Your task to perform on an android device: Search for vegetarian restaurants on Maps Image 0: 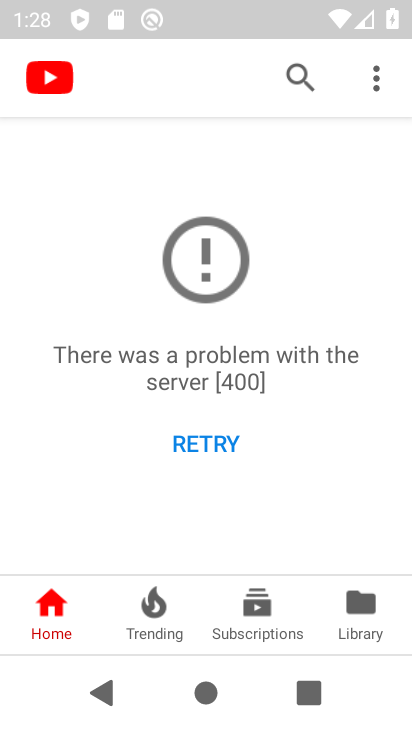
Step 0: press back button
Your task to perform on an android device: Search for vegetarian restaurants on Maps Image 1: 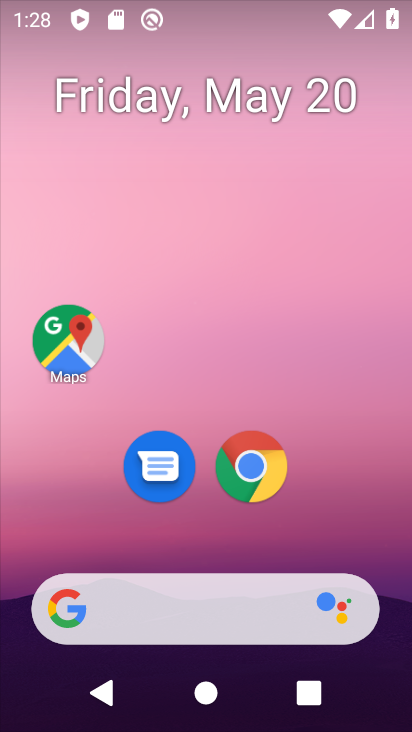
Step 1: click (77, 353)
Your task to perform on an android device: Search for vegetarian restaurants on Maps Image 2: 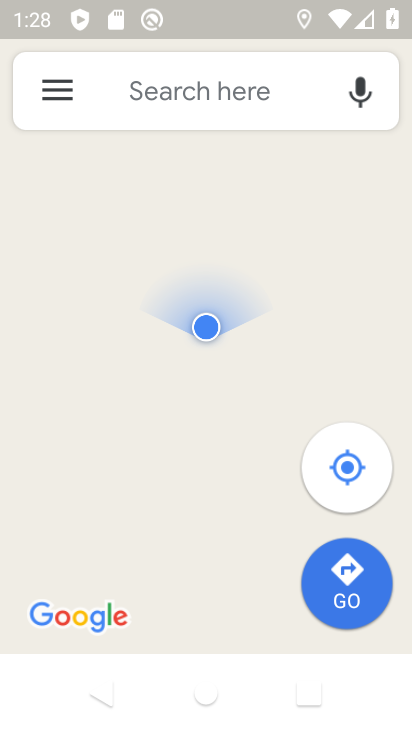
Step 2: click (204, 71)
Your task to perform on an android device: Search for vegetarian restaurants on Maps Image 3: 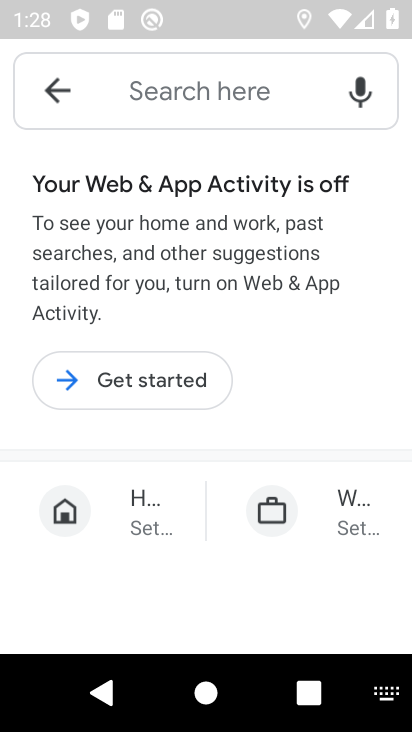
Step 3: click (104, 373)
Your task to perform on an android device: Search for vegetarian restaurants on Maps Image 4: 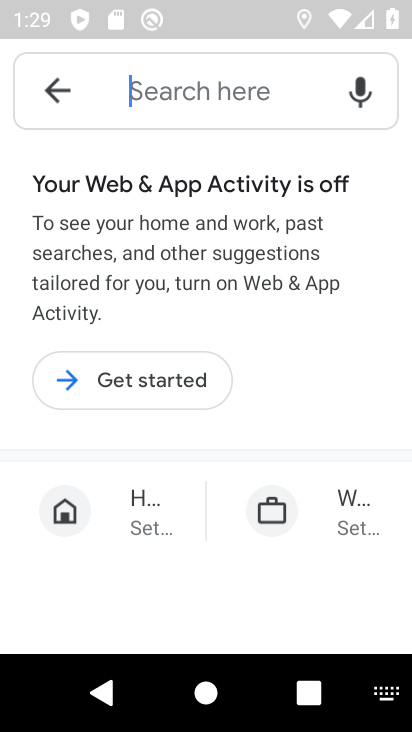
Step 4: click (193, 374)
Your task to perform on an android device: Search for vegetarian restaurants on Maps Image 5: 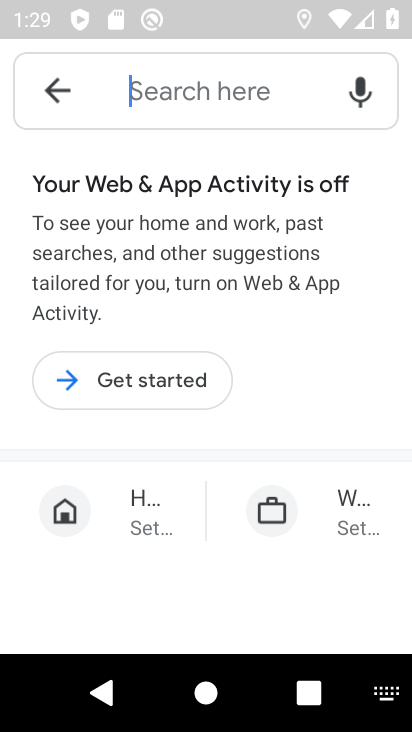
Step 5: click (193, 374)
Your task to perform on an android device: Search for vegetarian restaurants on Maps Image 6: 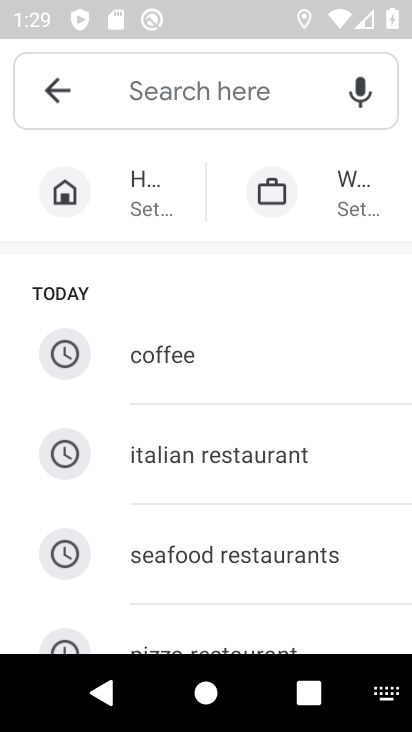
Step 6: drag from (182, 591) to (165, 426)
Your task to perform on an android device: Search for vegetarian restaurants on Maps Image 7: 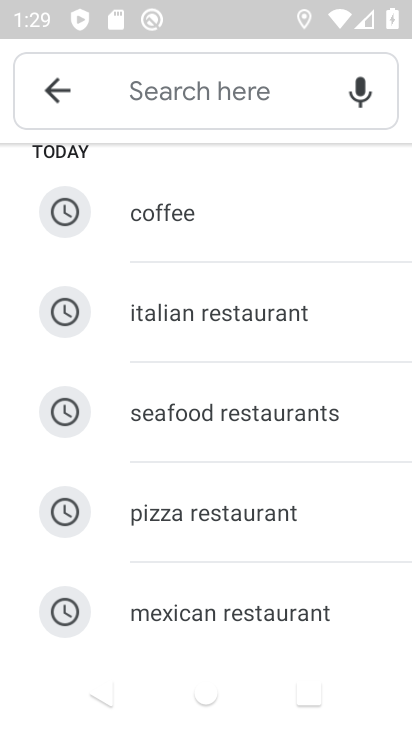
Step 7: drag from (165, 426) to (171, 238)
Your task to perform on an android device: Search for vegetarian restaurants on Maps Image 8: 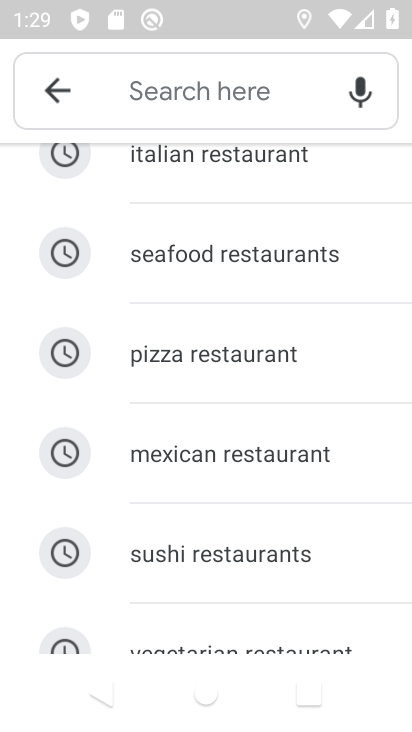
Step 8: click (155, 631)
Your task to perform on an android device: Search for vegetarian restaurants on Maps Image 9: 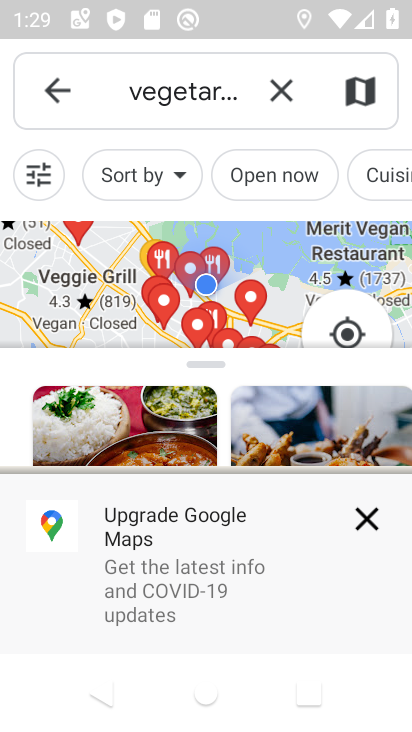
Step 9: task complete